Your task to perform on an android device: check data usage Image 0: 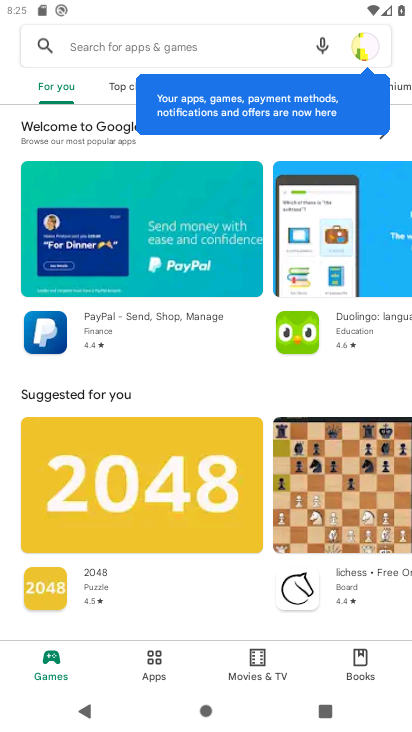
Step 0: press home button
Your task to perform on an android device: check data usage Image 1: 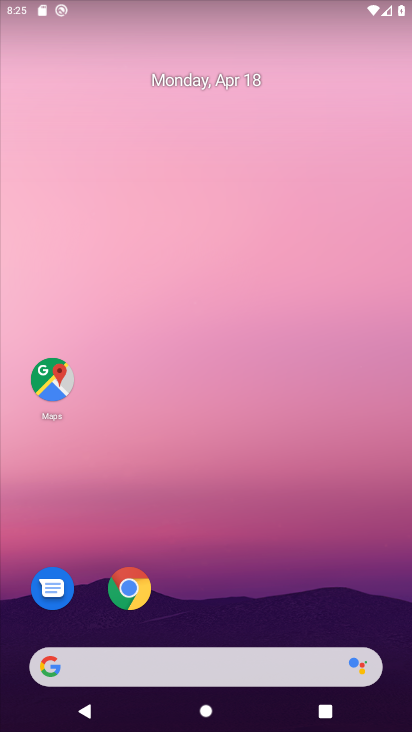
Step 1: drag from (255, 590) to (260, 126)
Your task to perform on an android device: check data usage Image 2: 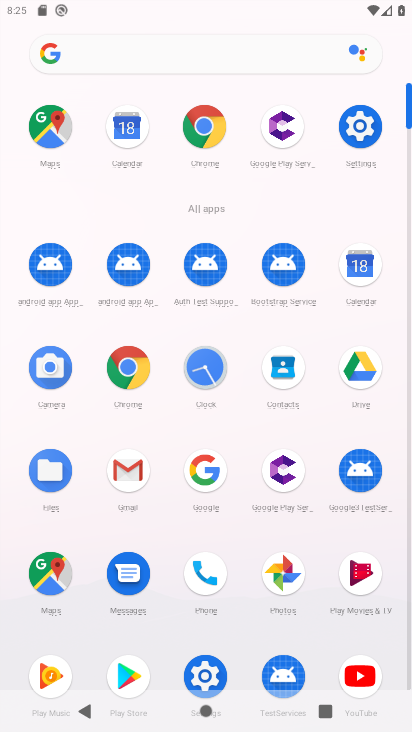
Step 2: click (363, 129)
Your task to perform on an android device: check data usage Image 3: 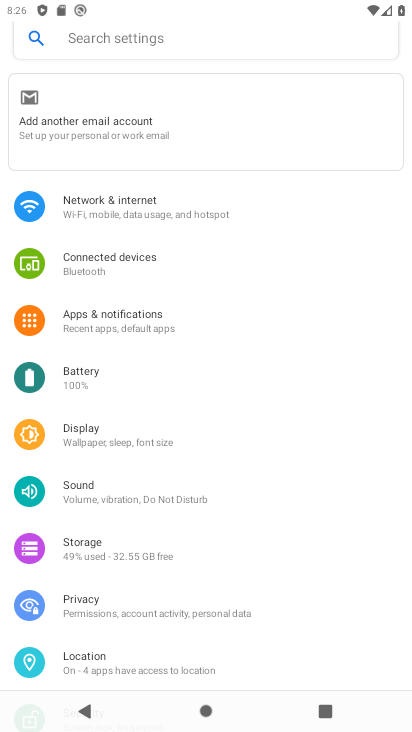
Step 3: click (140, 211)
Your task to perform on an android device: check data usage Image 4: 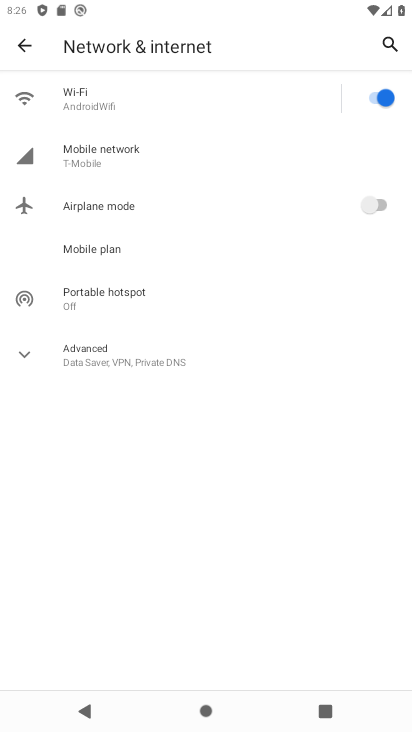
Step 4: click (122, 149)
Your task to perform on an android device: check data usage Image 5: 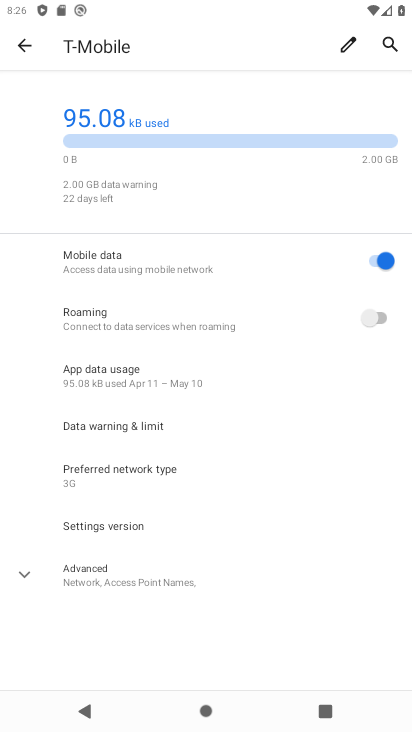
Step 5: click (118, 383)
Your task to perform on an android device: check data usage Image 6: 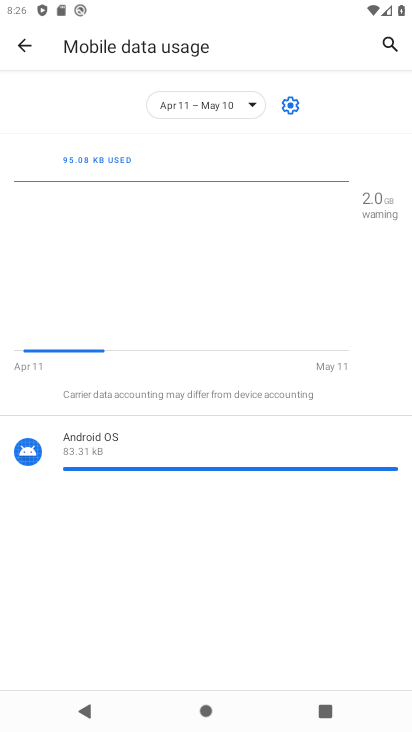
Step 6: task complete